Your task to perform on an android device: Open settings Image 0: 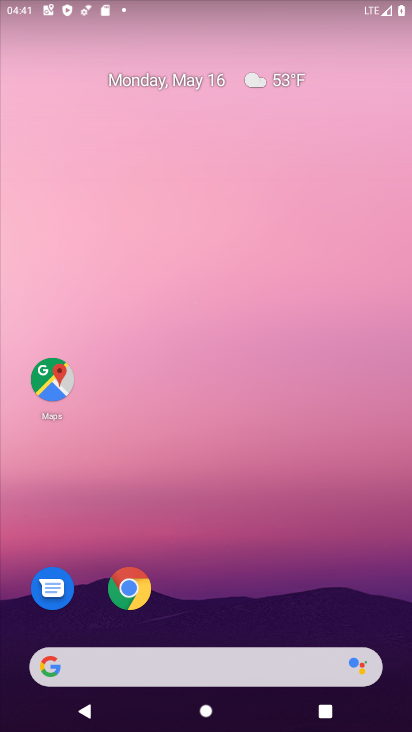
Step 0: drag from (289, 575) to (237, 14)
Your task to perform on an android device: Open settings Image 1: 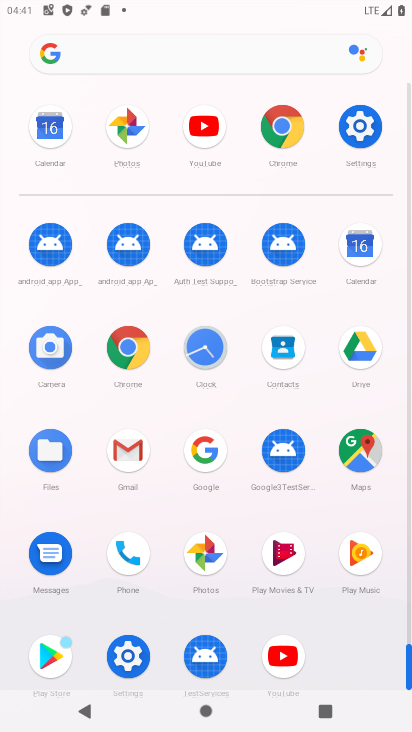
Step 1: click (358, 124)
Your task to perform on an android device: Open settings Image 2: 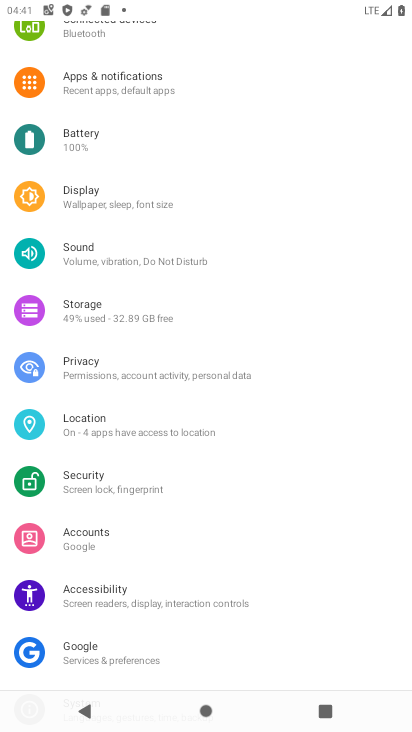
Step 2: task complete